Your task to perform on an android device: Open Maps and search for coffee Image 0: 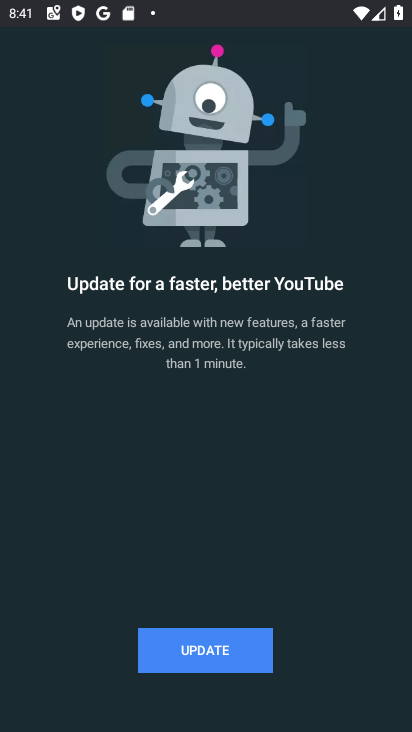
Step 0: press home button
Your task to perform on an android device: Open Maps and search for coffee Image 1: 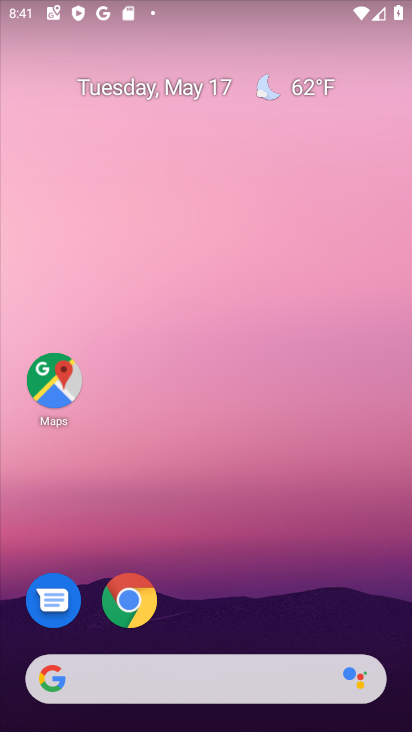
Step 1: drag from (212, 729) to (216, 243)
Your task to perform on an android device: Open Maps and search for coffee Image 2: 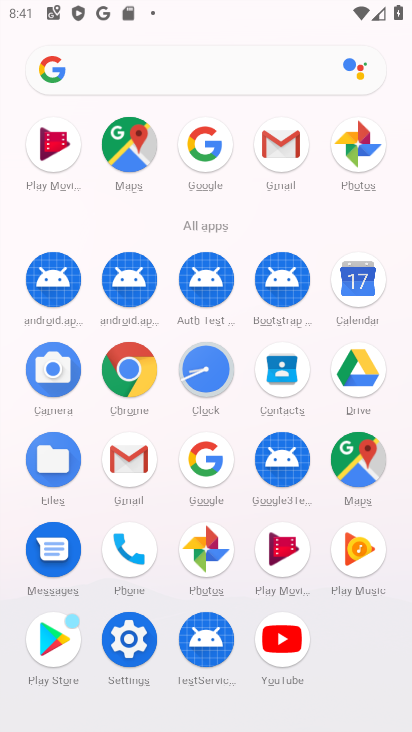
Step 2: click (351, 451)
Your task to perform on an android device: Open Maps and search for coffee Image 3: 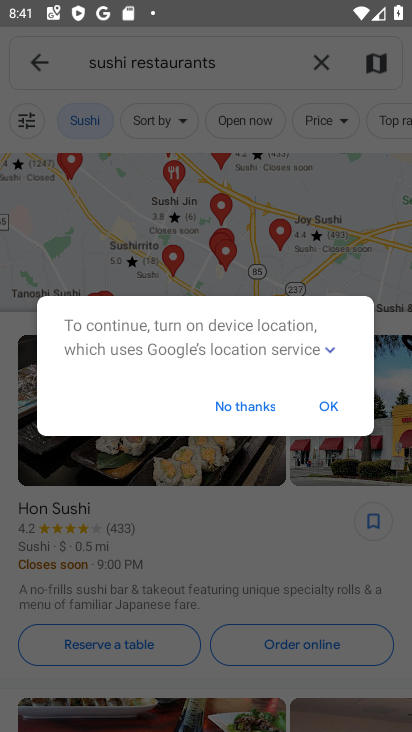
Step 3: click (243, 405)
Your task to perform on an android device: Open Maps and search for coffee Image 4: 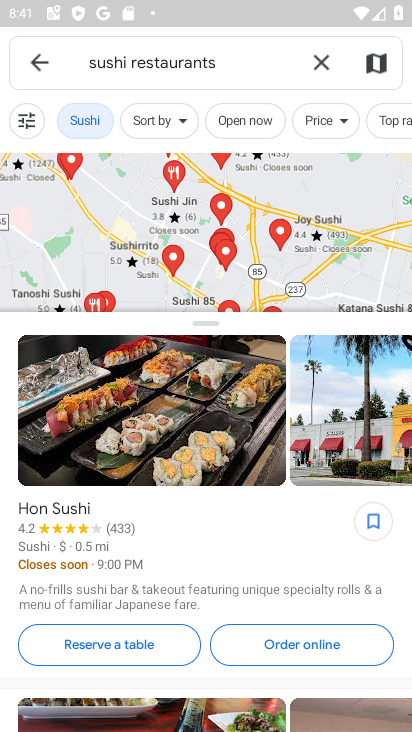
Step 4: click (317, 58)
Your task to perform on an android device: Open Maps and search for coffee Image 5: 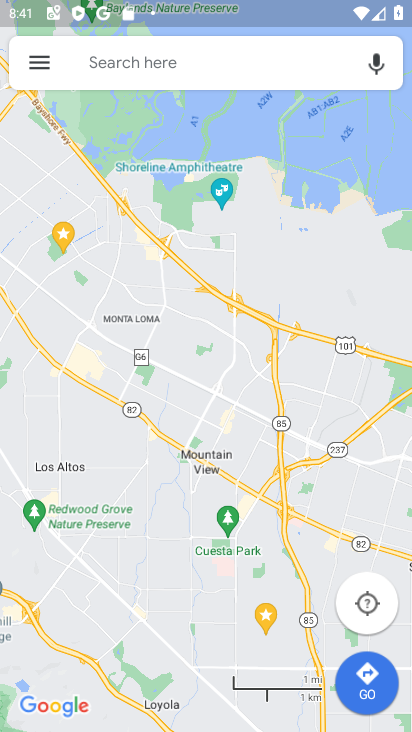
Step 5: click (201, 57)
Your task to perform on an android device: Open Maps and search for coffee Image 6: 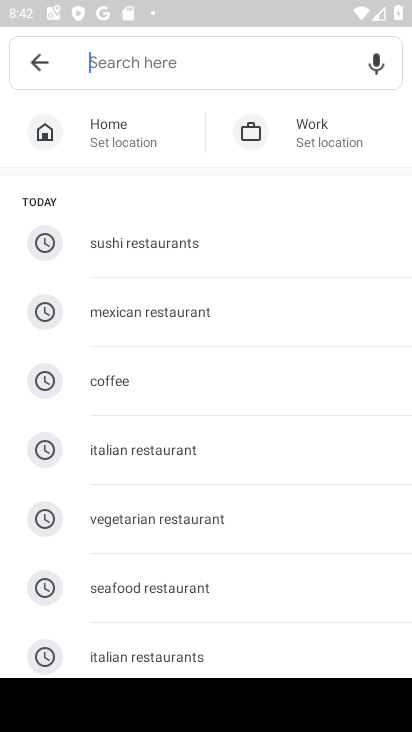
Step 6: type "coffee"
Your task to perform on an android device: Open Maps and search for coffee Image 7: 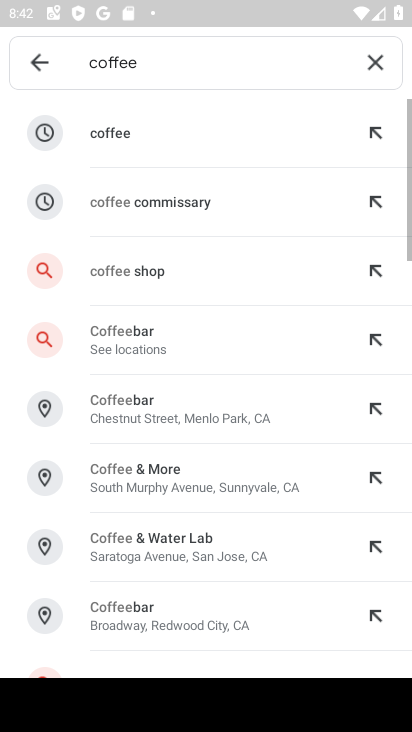
Step 7: click (108, 135)
Your task to perform on an android device: Open Maps and search for coffee Image 8: 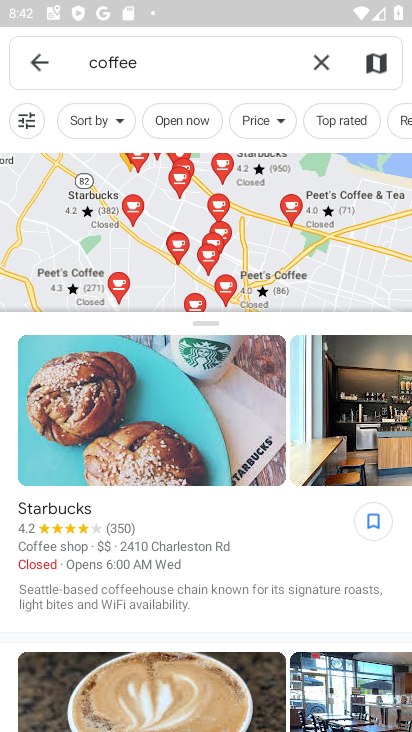
Step 8: task complete